Your task to perform on an android device: Search for seafood restaurants on Google Maps Image 0: 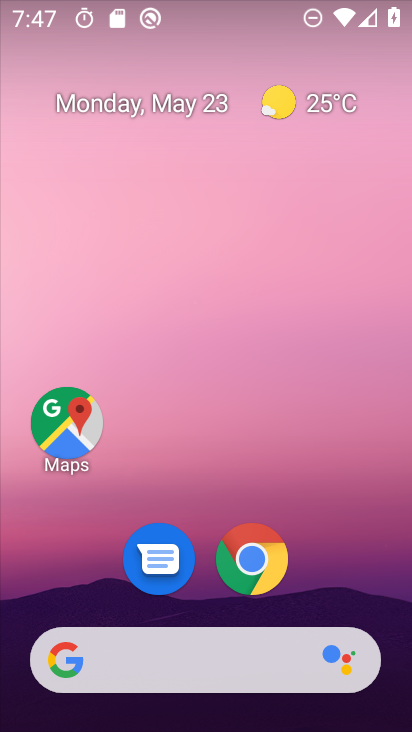
Step 0: drag from (389, 635) to (244, 13)
Your task to perform on an android device: Search for seafood restaurants on Google Maps Image 1: 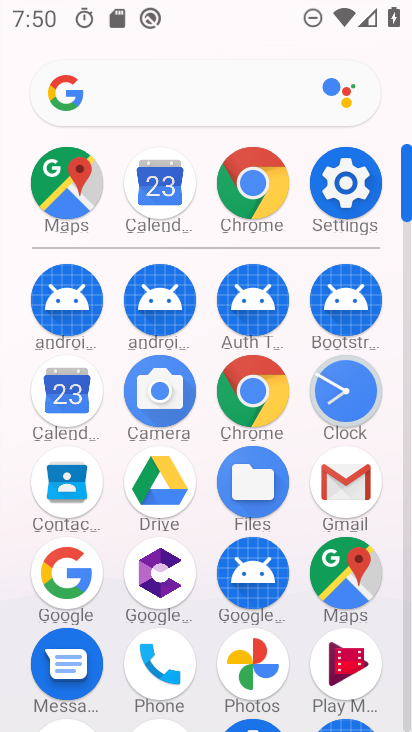
Step 1: click (370, 576)
Your task to perform on an android device: Search for seafood restaurants on Google Maps Image 2: 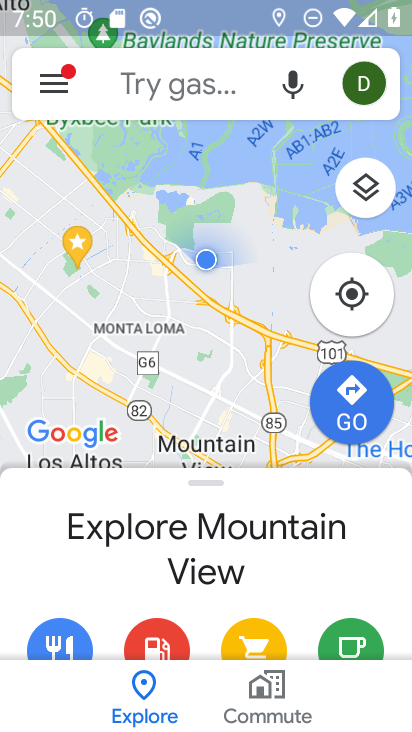
Step 2: click (157, 84)
Your task to perform on an android device: Search for seafood restaurants on Google Maps Image 3: 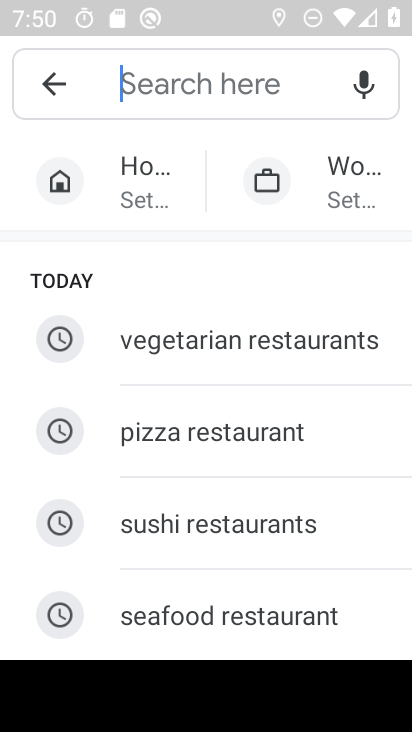
Step 3: click (172, 606)
Your task to perform on an android device: Search for seafood restaurants on Google Maps Image 4: 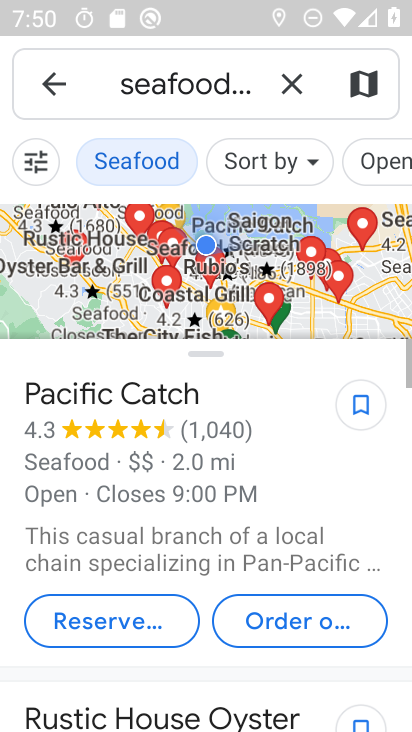
Step 4: task complete